Your task to perform on an android device: install app "Skype" Image 0: 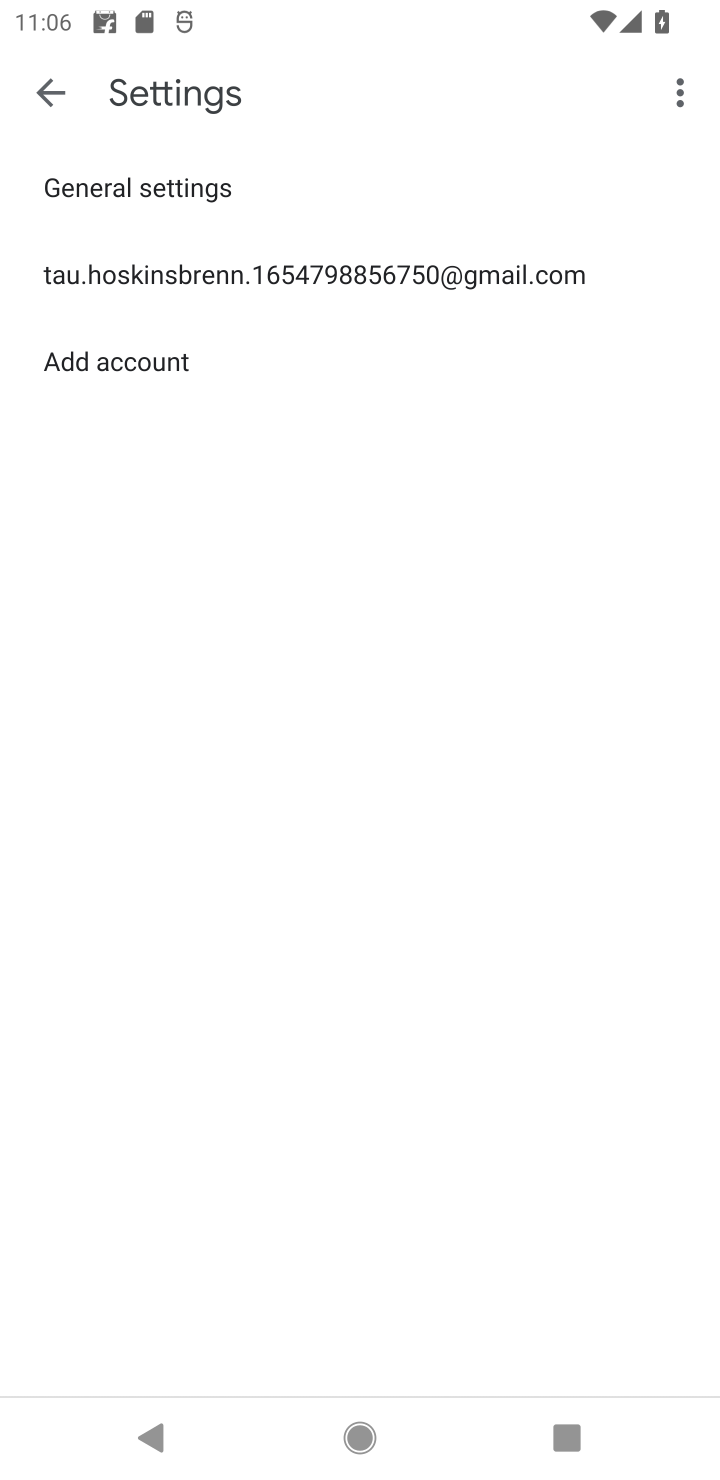
Step 0: press home button
Your task to perform on an android device: install app "Skype" Image 1: 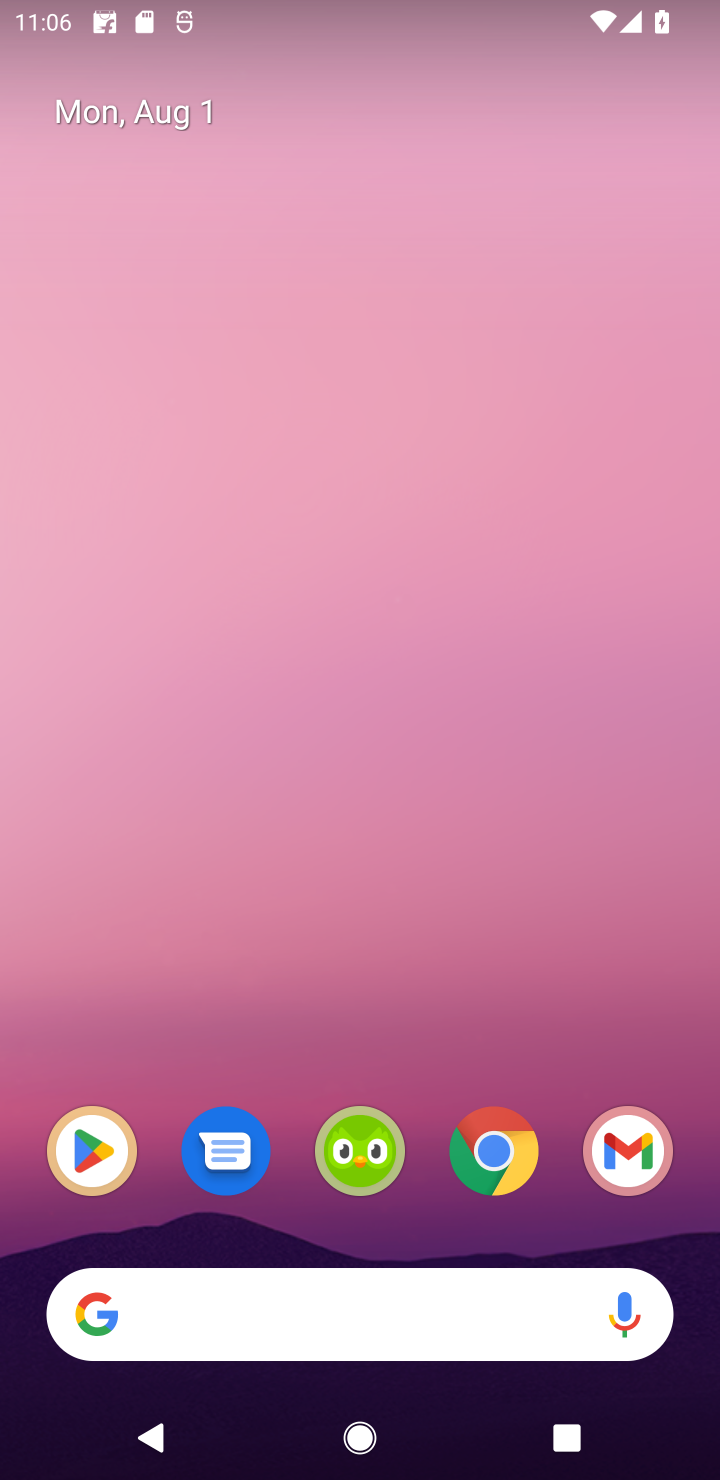
Step 1: click (72, 1158)
Your task to perform on an android device: install app "Skype" Image 2: 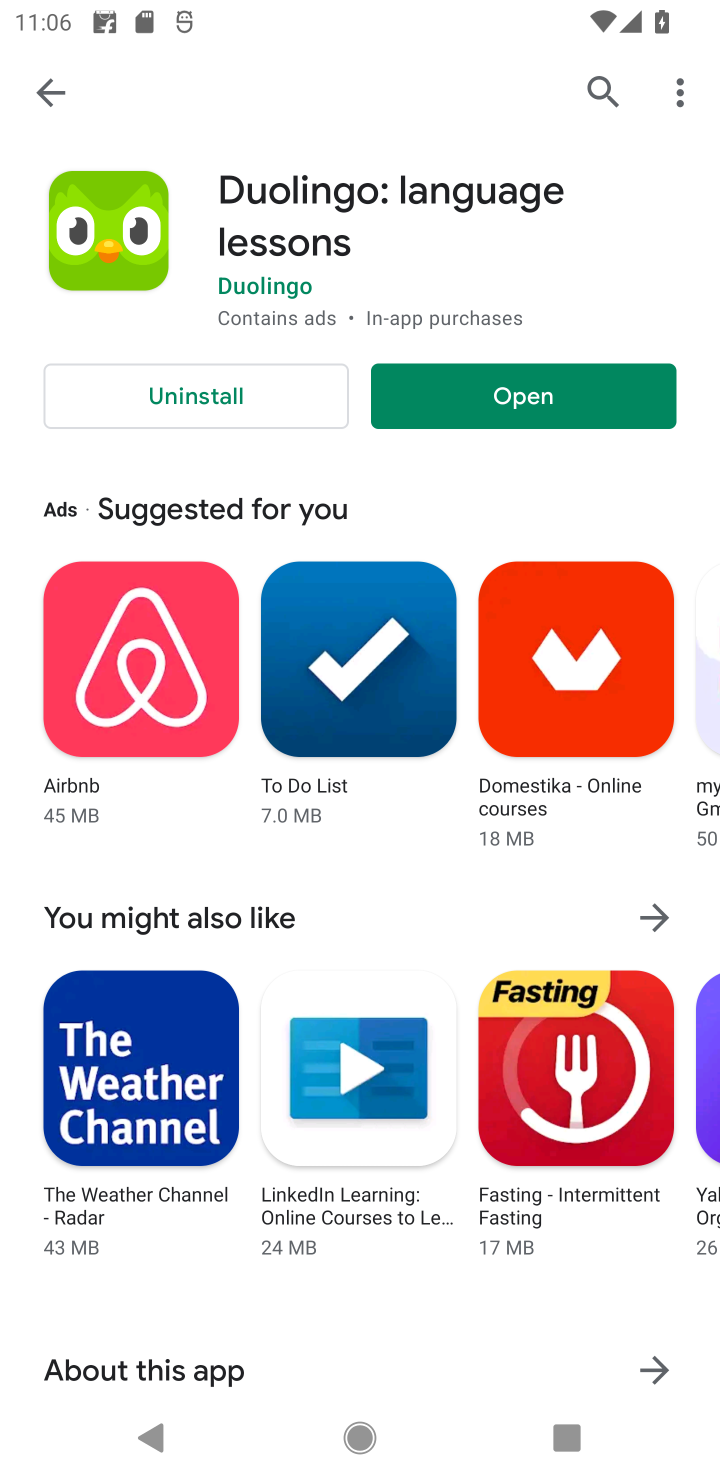
Step 2: click (587, 101)
Your task to perform on an android device: install app "Skype" Image 3: 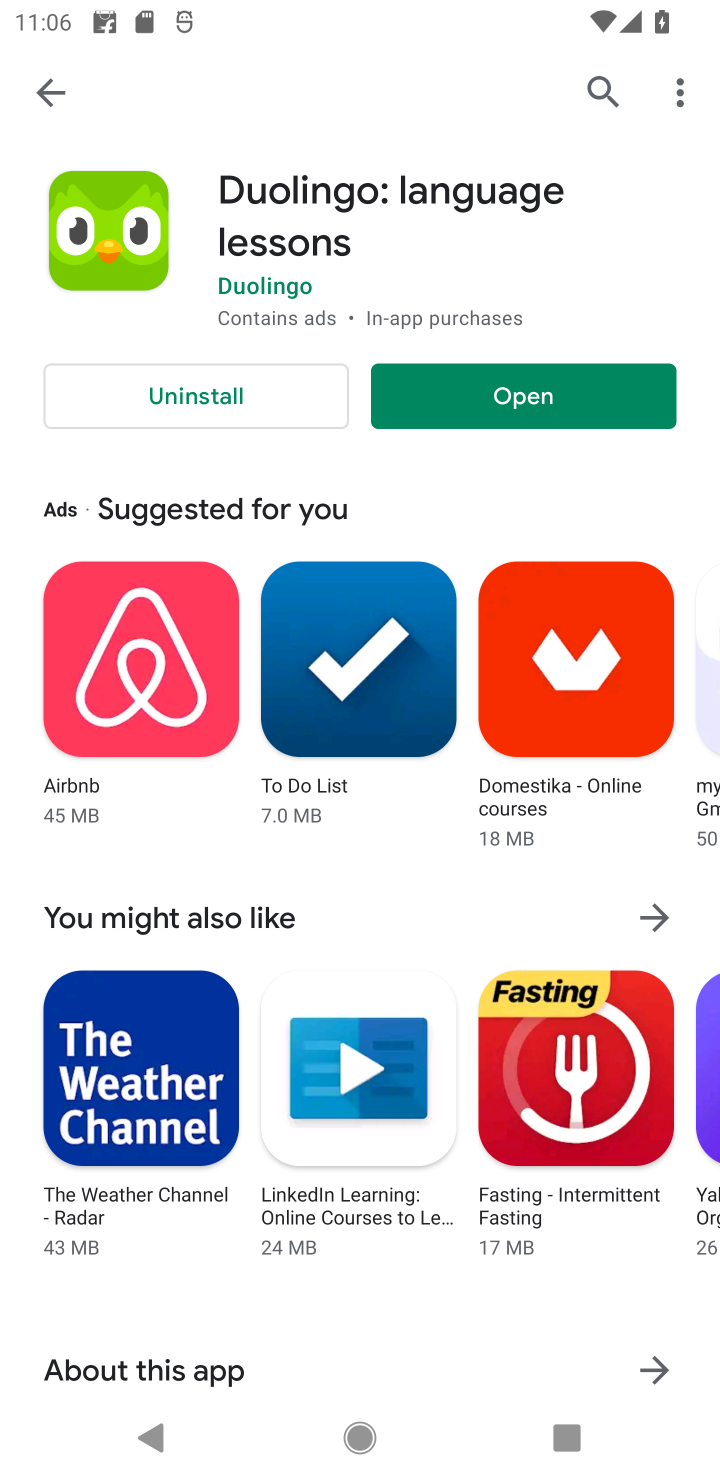
Step 3: click (601, 91)
Your task to perform on an android device: install app "Skype" Image 4: 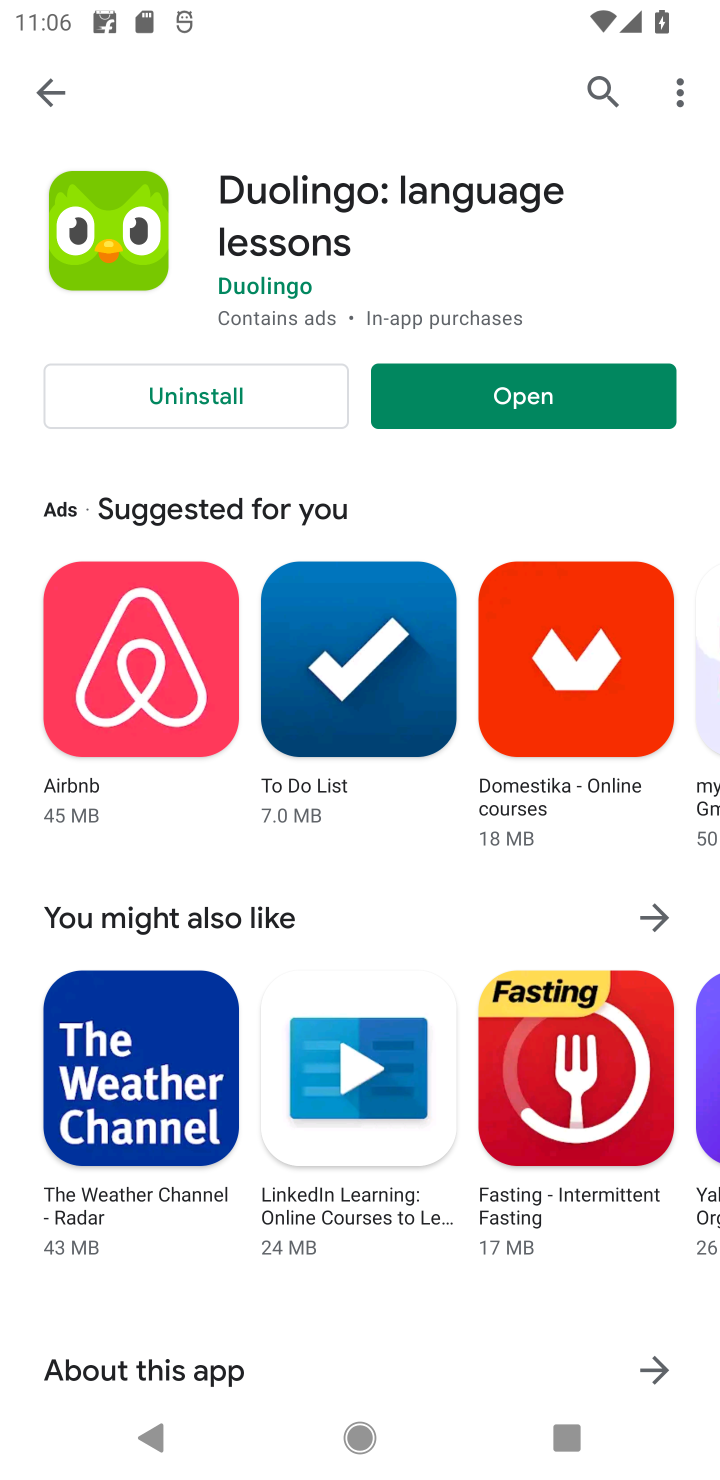
Step 4: click (595, 100)
Your task to perform on an android device: install app "Skype" Image 5: 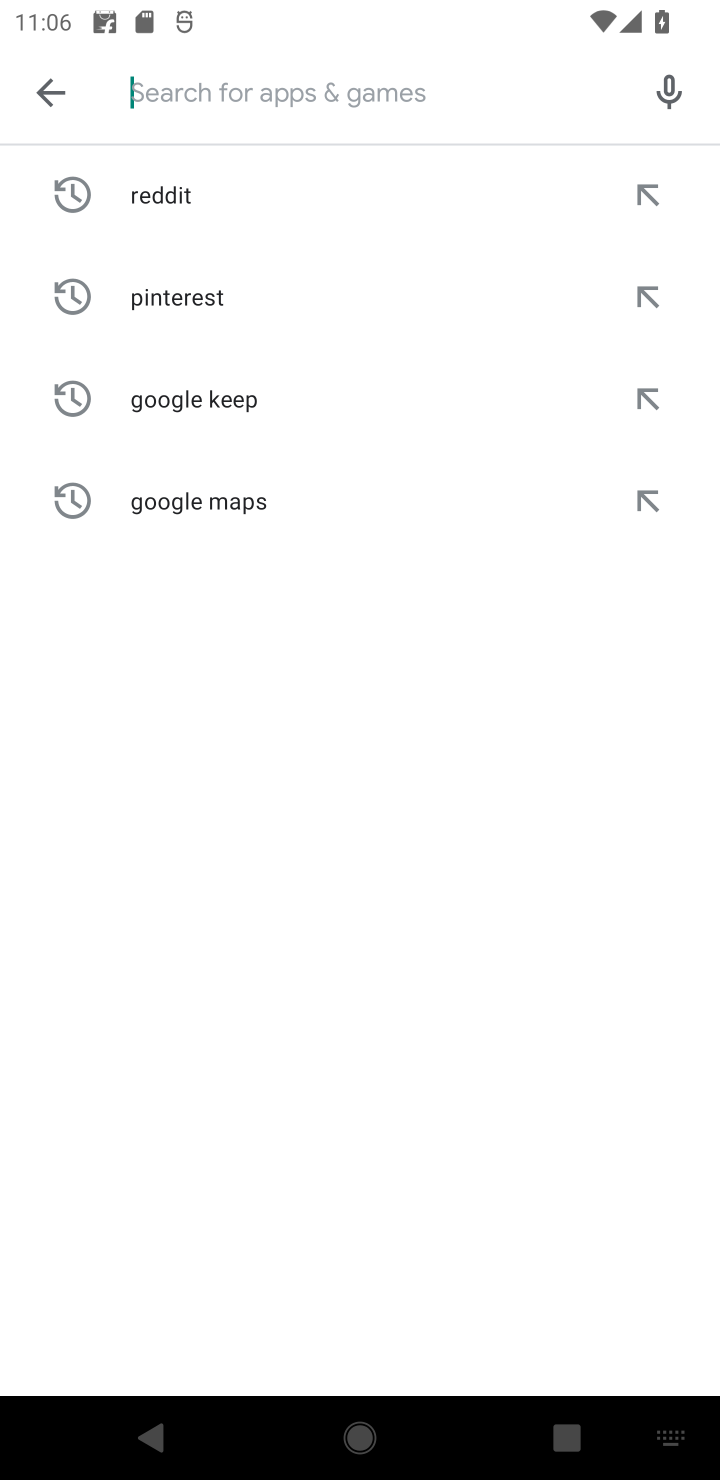
Step 5: type "Skype"
Your task to perform on an android device: install app "Skype" Image 6: 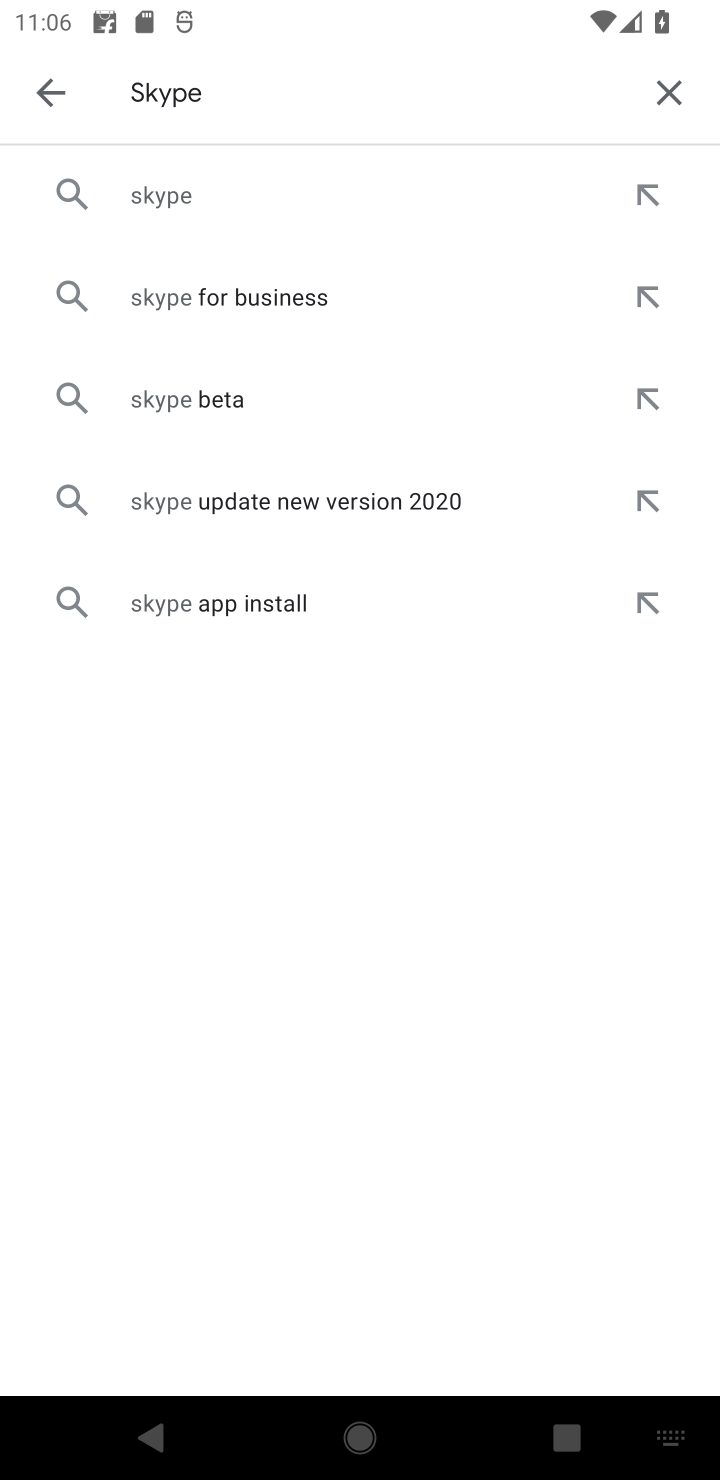
Step 6: click (159, 198)
Your task to perform on an android device: install app "Skype" Image 7: 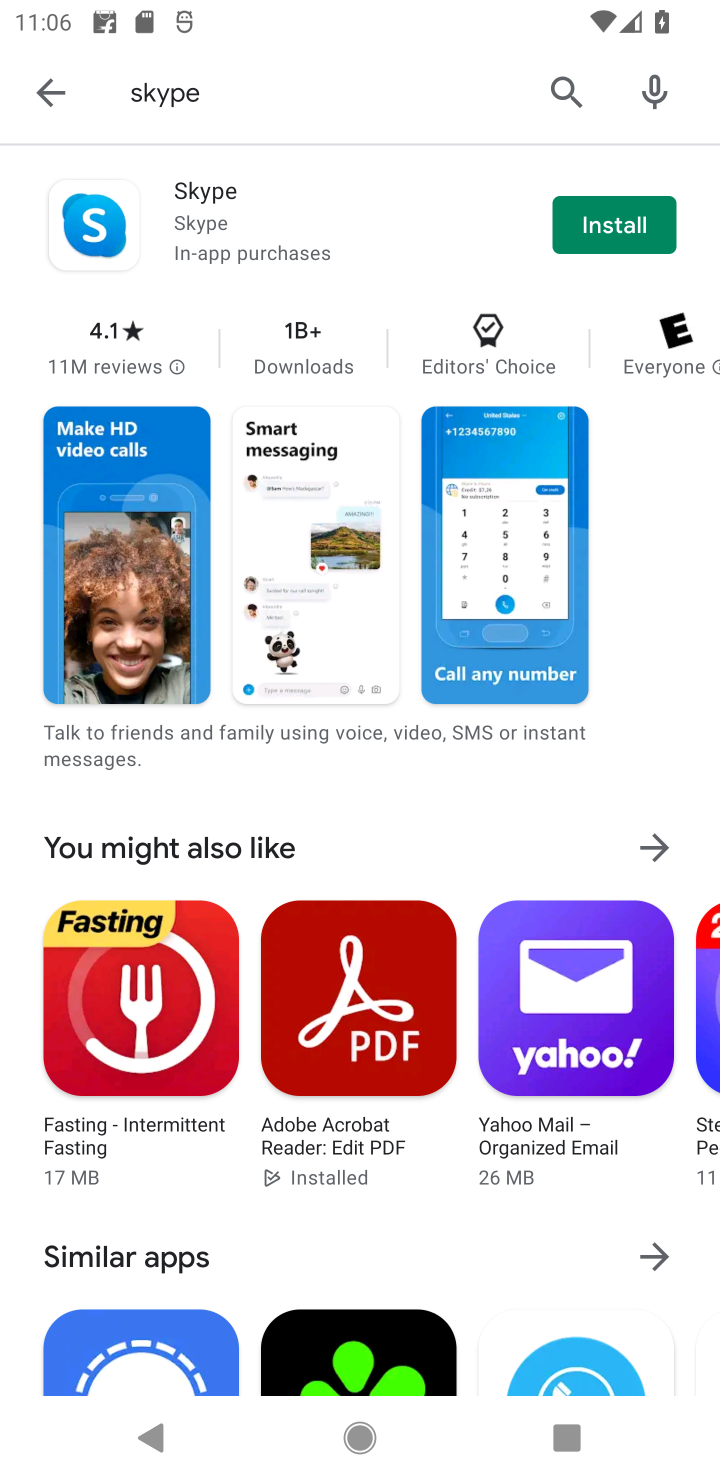
Step 7: click (634, 229)
Your task to perform on an android device: install app "Skype" Image 8: 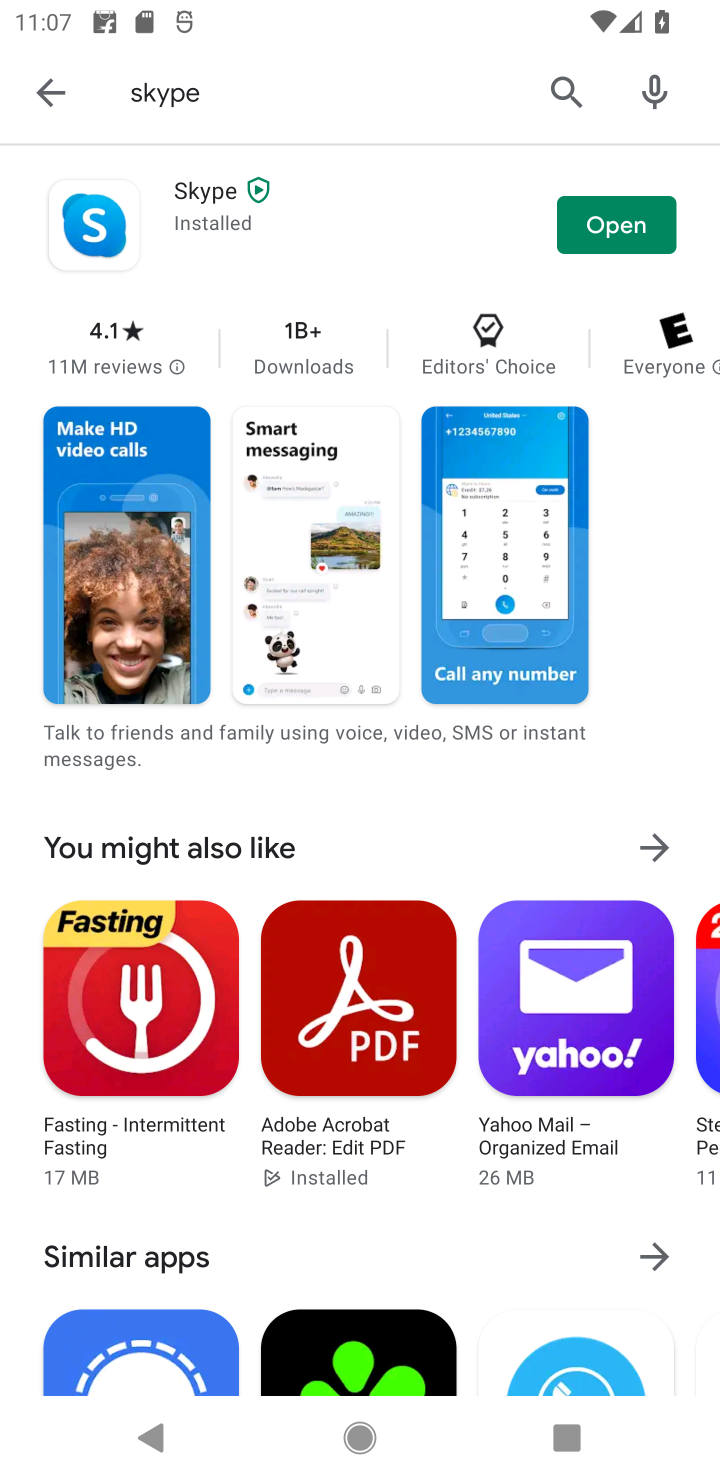
Step 8: task complete